Your task to perform on an android device: Open location settings Image 0: 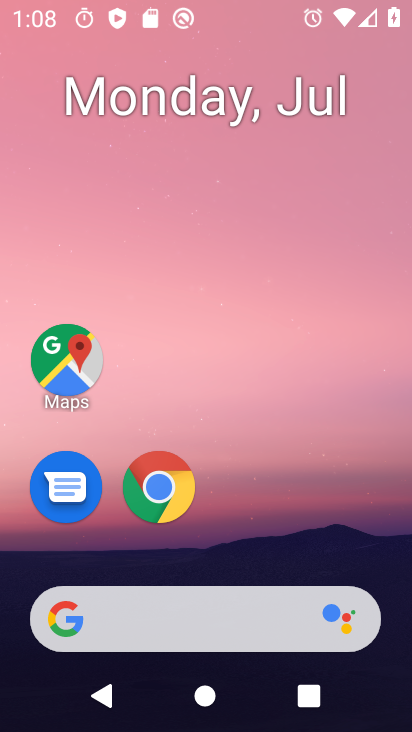
Step 0: press home button
Your task to perform on an android device: Open location settings Image 1: 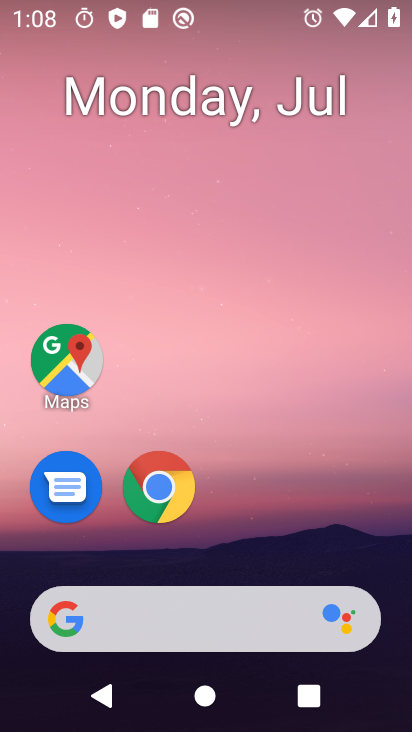
Step 1: drag from (302, 527) to (278, 31)
Your task to perform on an android device: Open location settings Image 2: 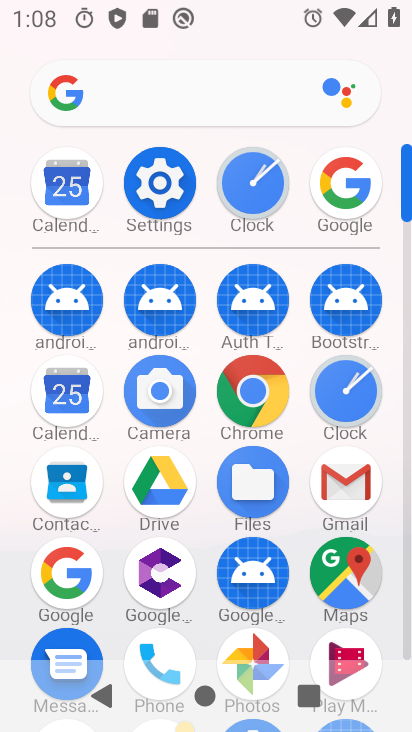
Step 2: click (163, 187)
Your task to perform on an android device: Open location settings Image 3: 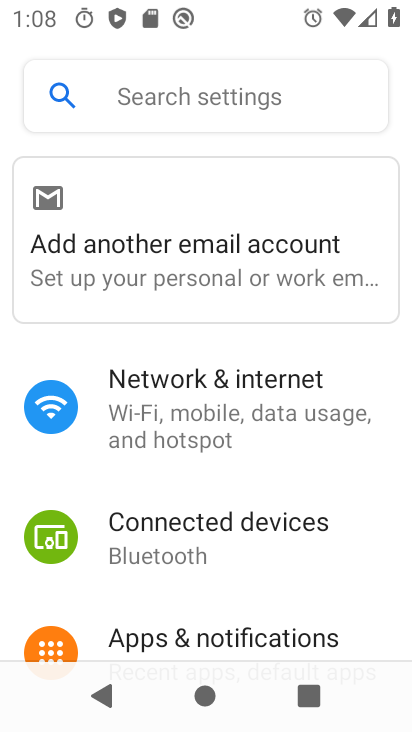
Step 3: drag from (75, 590) to (111, 162)
Your task to perform on an android device: Open location settings Image 4: 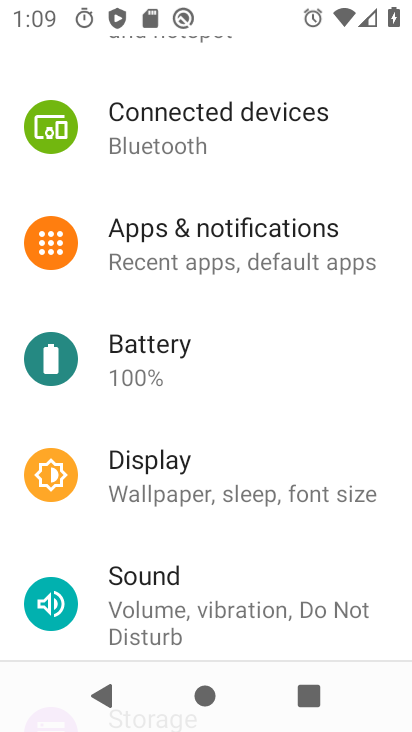
Step 4: drag from (87, 538) to (252, 81)
Your task to perform on an android device: Open location settings Image 5: 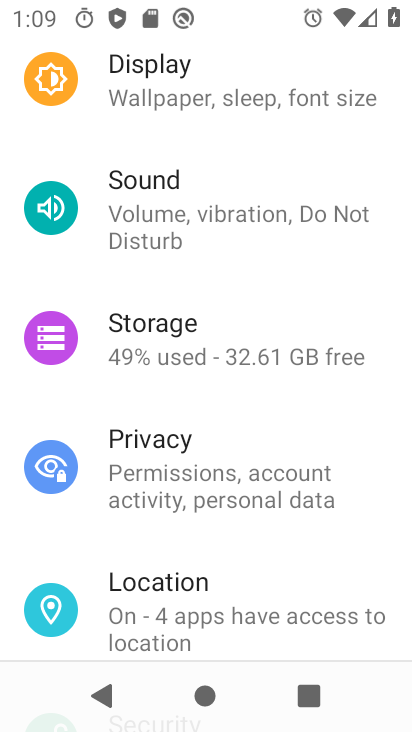
Step 5: click (144, 596)
Your task to perform on an android device: Open location settings Image 6: 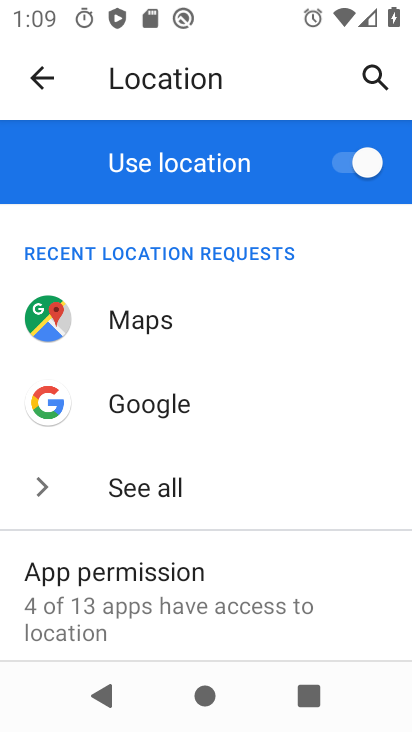
Step 6: task complete